Your task to perform on an android device: find photos in the google photos app Image 0: 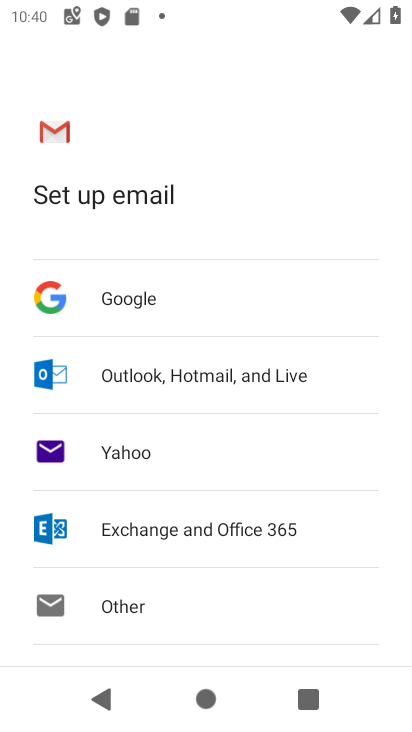
Step 0: press home button
Your task to perform on an android device: find photos in the google photos app Image 1: 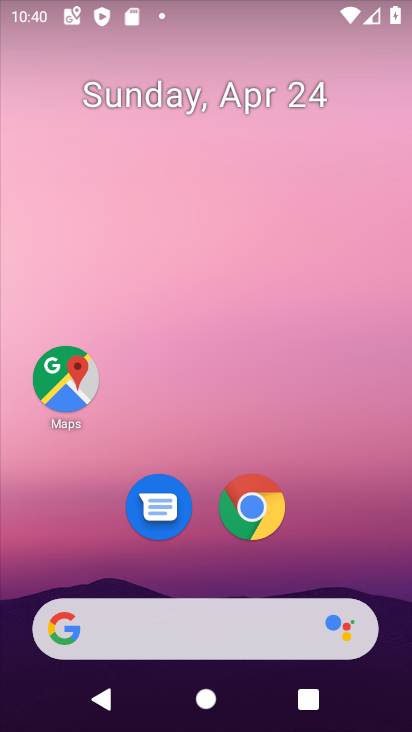
Step 1: drag from (354, 574) to (274, 62)
Your task to perform on an android device: find photos in the google photos app Image 2: 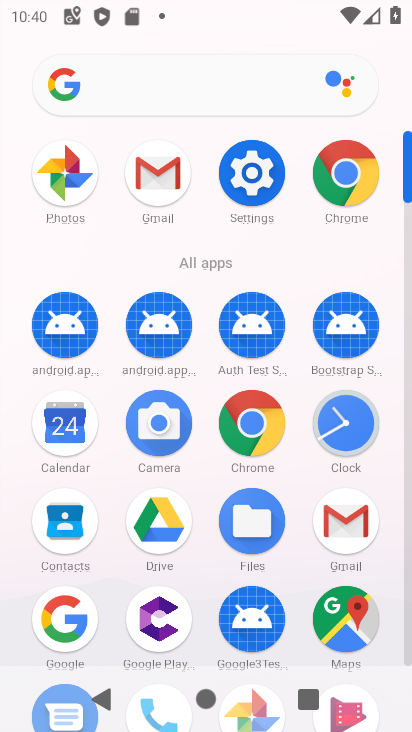
Step 2: click (66, 185)
Your task to perform on an android device: find photos in the google photos app Image 3: 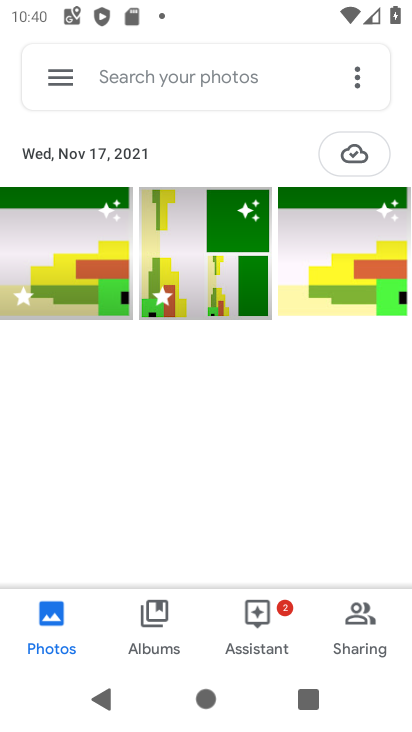
Step 3: task complete